Your task to perform on an android device: toggle improve location accuracy Image 0: 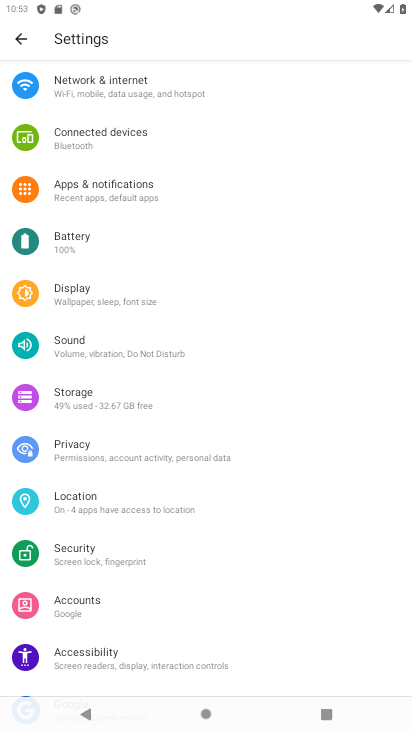
Step 0: click (86, 507)
Your task to perform on an android device: toggle improve location accuracy Image 1: 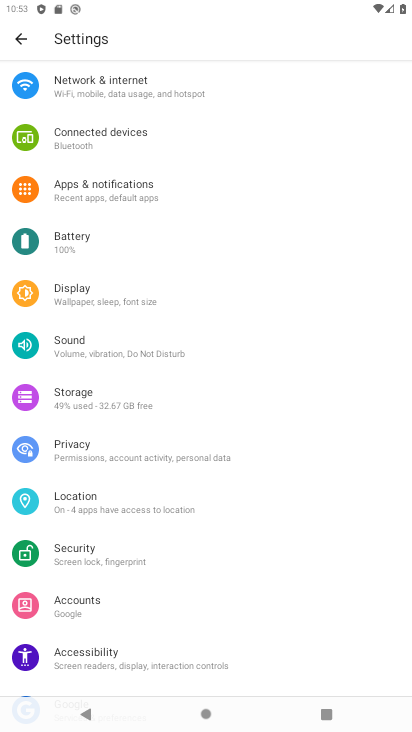
Step 1: click (77, 507)
Your task to perform on an android device: toggle improve location accuracy Image 2: 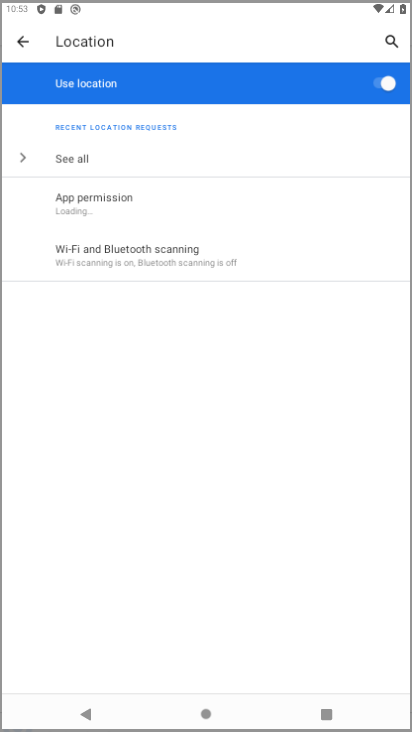
Step 2: click (77, 507)
Your task to perform on an android device: toggle improve location accuracy Image 3: 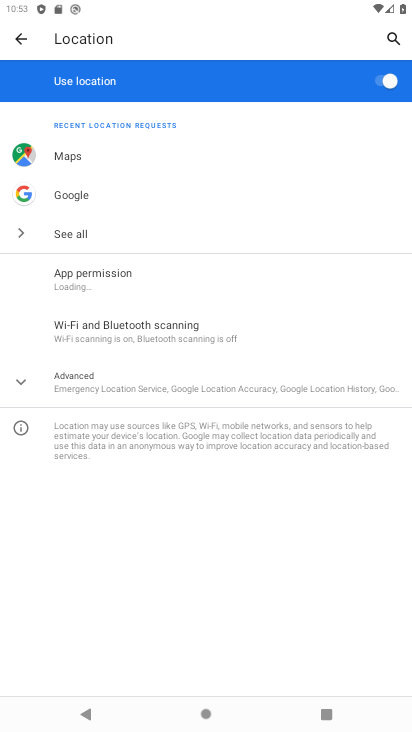
Step 3: click (103, 381)
Your task to perform on an android device: toggle improve location accuracy Image 4: 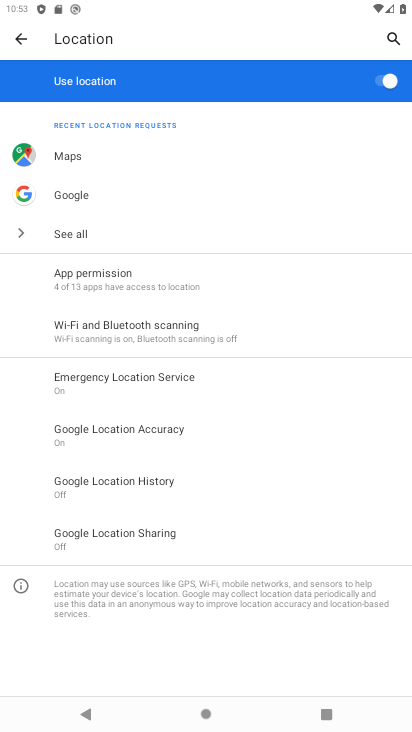
Step 4: click (108, 426)
Your task to perform on an android device: toggle improve location accuracy Image 5: 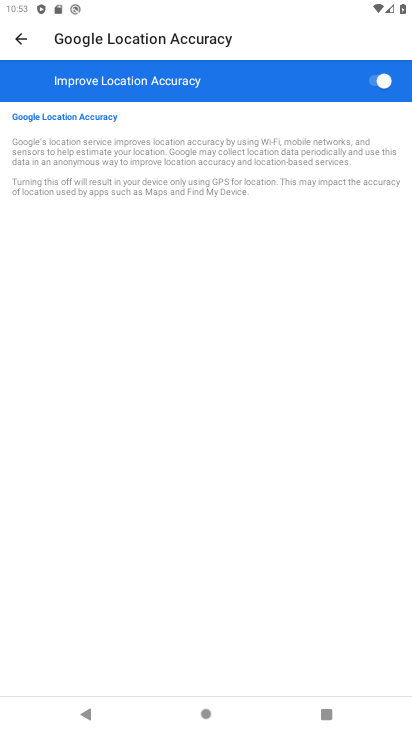
Step 5: click (380, 79)
Your task to perform on an android device: toggle improve location accuracy Image 6: 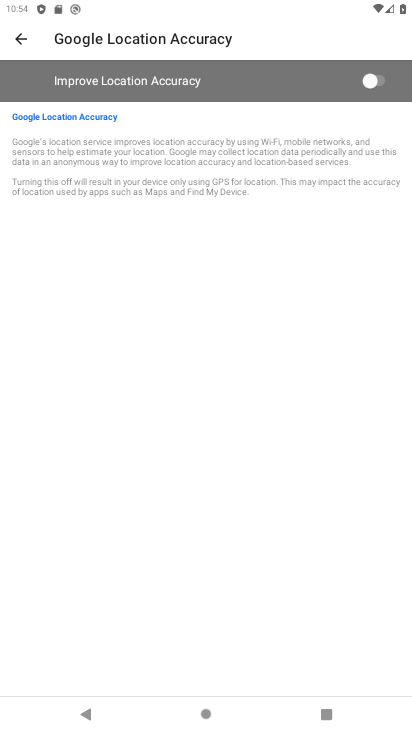
Step 6: click (23, 38)
Your task to perform on an android device: toggle improve location accuracy Image 7: 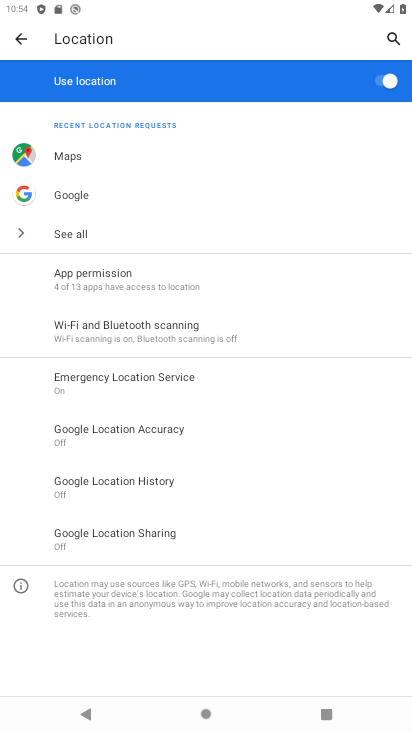
Step 7: click (14, 42)
Your task to perform on an android device: toggle improve location accuracy Image 8: 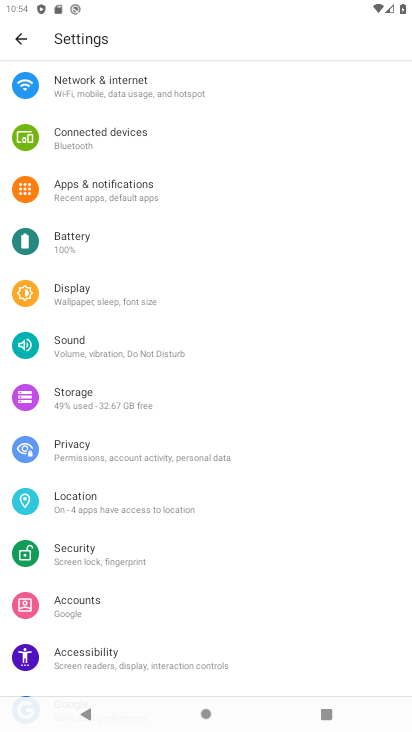
Step 8: click (87, 498)
Your task to perform on an android device: toggle improve location accuracy Image 9: 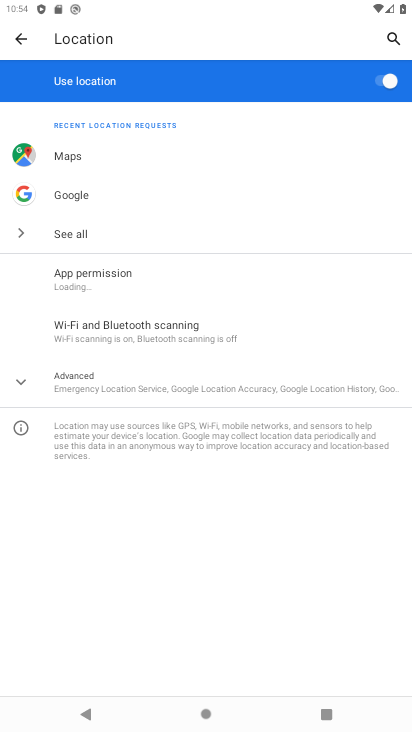
Step 9: click (85, 376)
Your task to perform on an android device: toggle improve location accuracy Image 10: 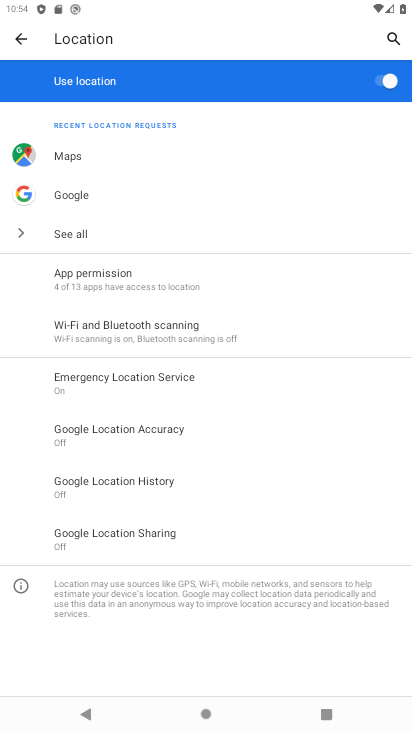
Step 10: click (119, 439)
Your task to perform on an android device: toggle improve location accuracy Image 11: 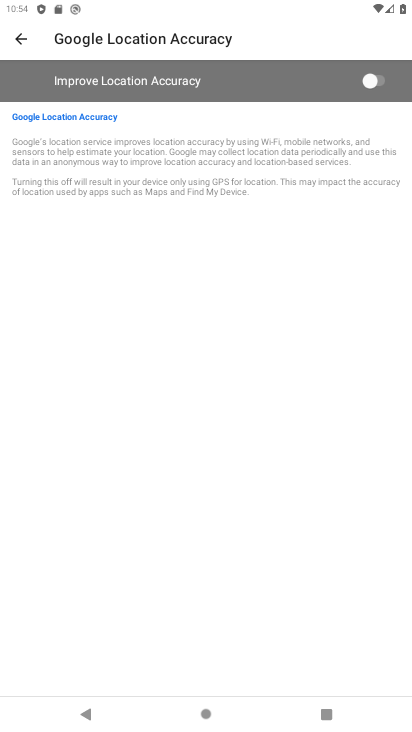
Step 11: click (364, 77)
Your task to perform on an android device: toggle improve location accuracy Image 12: 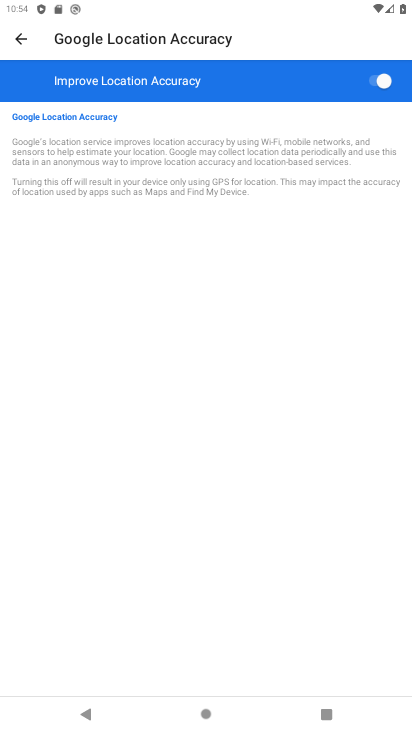
Step 12: press back button
Your task to perform on an android device: toggle improve location accuracy Image 13: 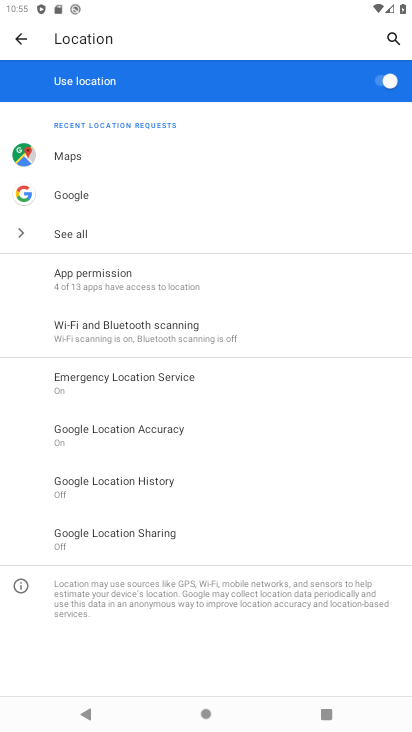
Step 13: click (138, 431)
Your task to perform on an android device: toggle improve location accuracy Image 14: 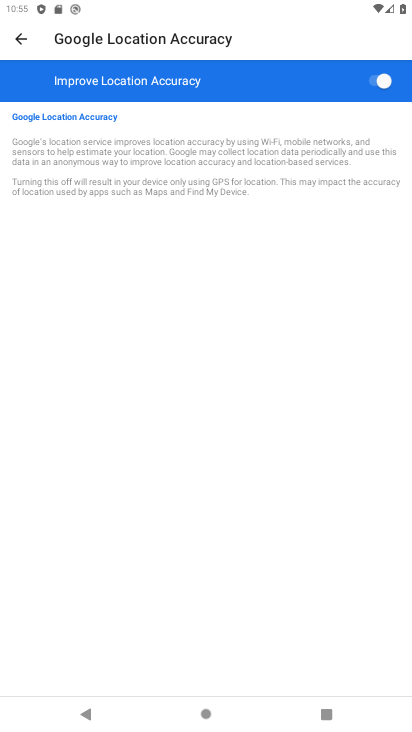
Step 14: click (387, 84)
Your task to perform on an android device: toggle improve location accuracy Image 15: 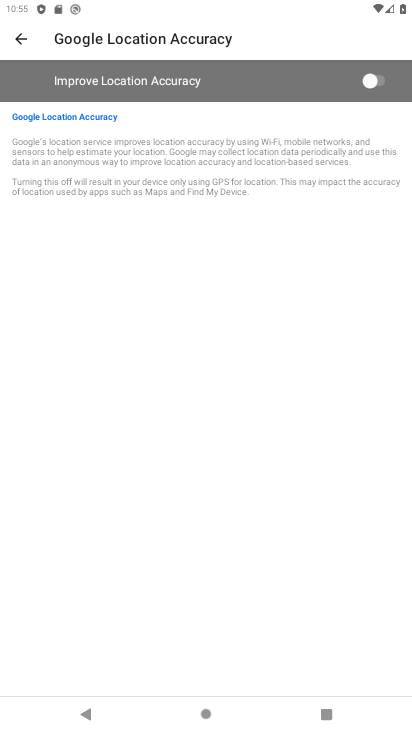
Step 15: press back button
Your task to perform on an android device: toggle improve location accuracy Image 16: 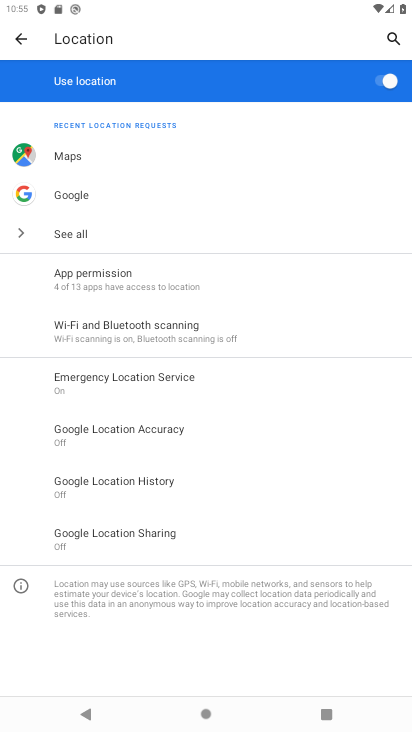
Step 16: press home button
Your task to perform on an android device: toggle improve location accuracy Image 17: 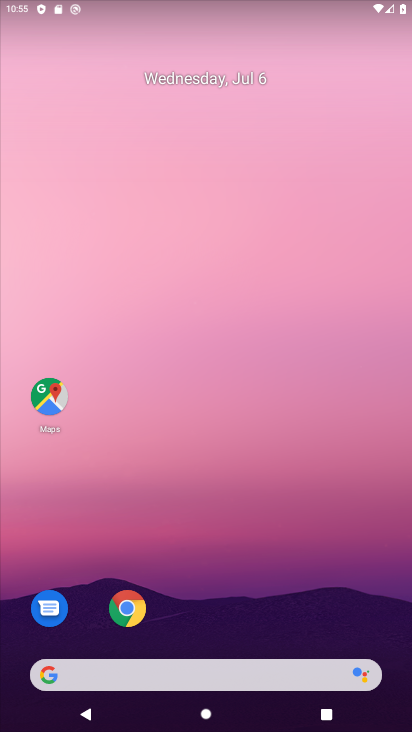
Step 17: drag from (259, 607) to (195, 75)
Your task to perform on an android device: toggle improve location accuracy Image 18: 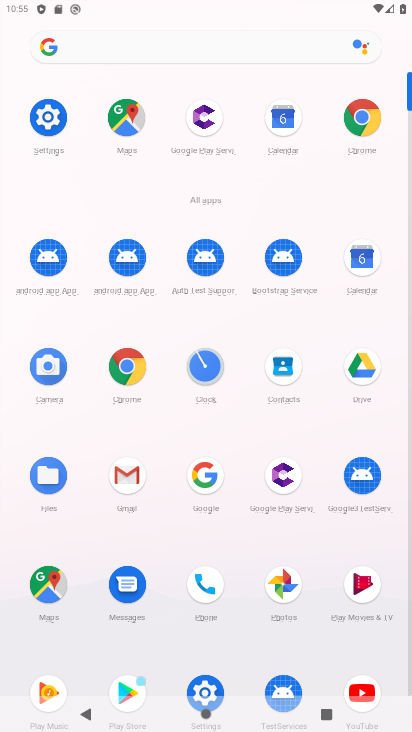
Step 18: click (207, 681)
Your task to perform on an android device: toggle improve location accuracy Image 19: 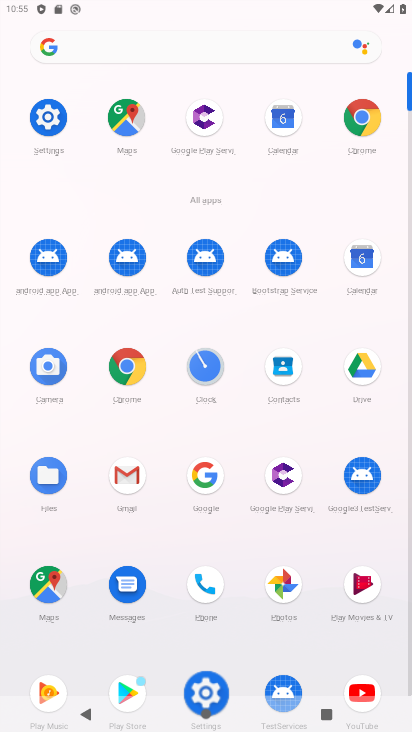
Step 19: click (209, 677)
Your task to perform on an android device: toggle improve location accuracy Image 20: 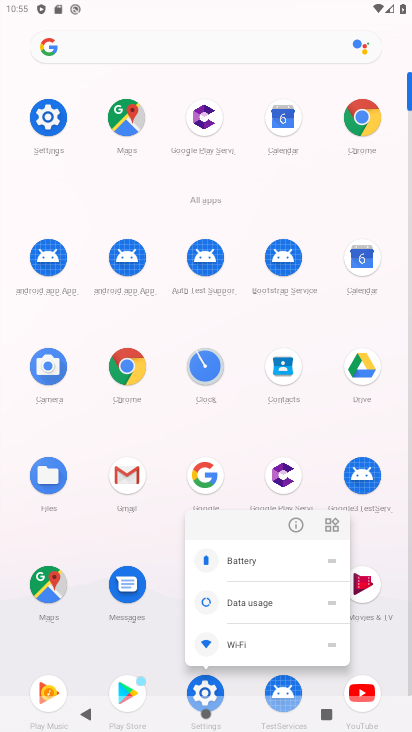
Step 20: click (203, 683)
Your task to perform on an android device: toggle improve location accuracy Image 21: 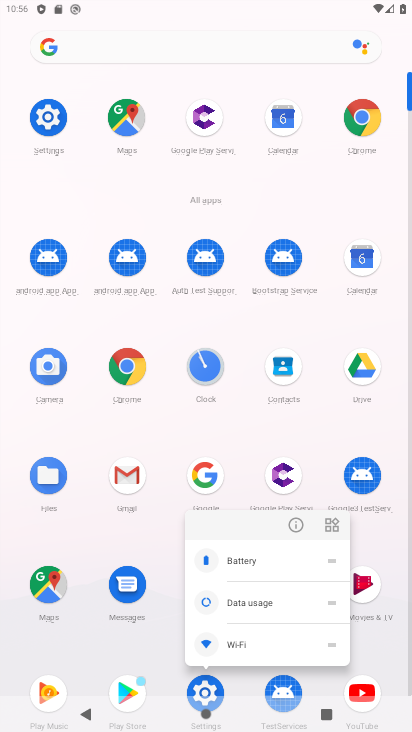
Step 21: click (220, 676)
Your task to perform on an android device: toggle improve location accuracy Image 22: 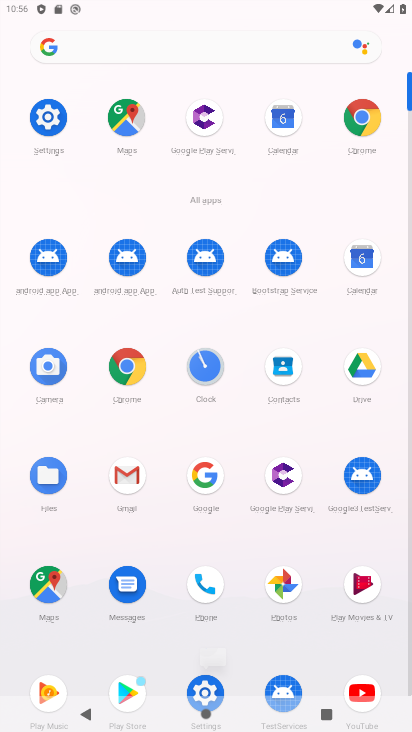
Step 22: click (220, 679)
Your task to perform on an android device: toggle improve location accuracy Image 23: 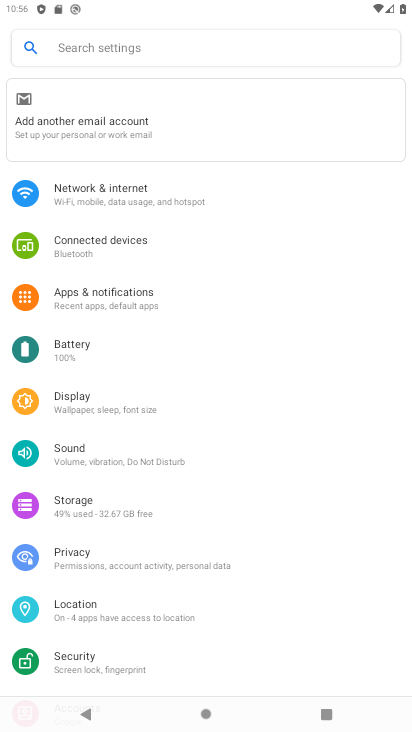
Step 23: drag from (82, 577) to (83, 253)
Your task to perform on an android device: toggle improve location accuracy Image 24: 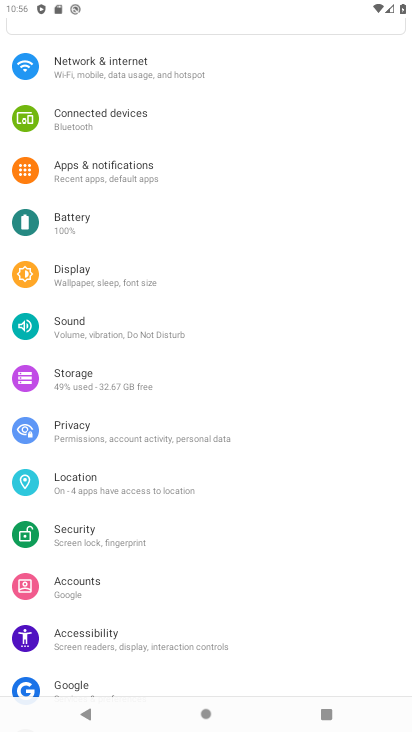
Step 24: click (86, 482)
Your task to perform on an android device: toggle improve location accuracy Image 25: 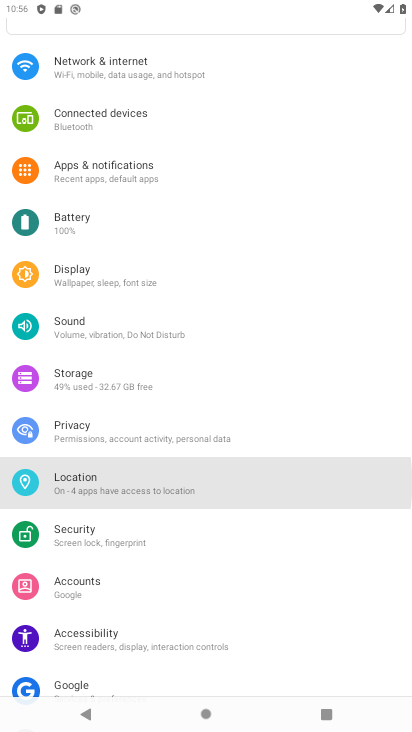
Step 25: click (91, 479)
Your task to perform on an android device: toggle improve location accuracy Image 26: 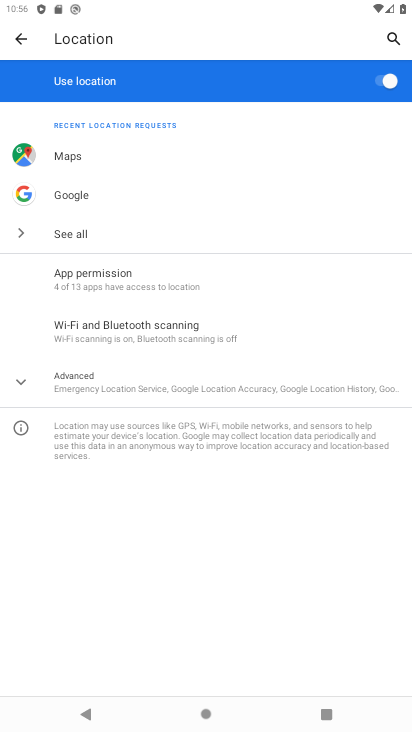
Step 26: click (81, 380)
Your task to perform on an android device: toggle improve location accuracy Image 27: 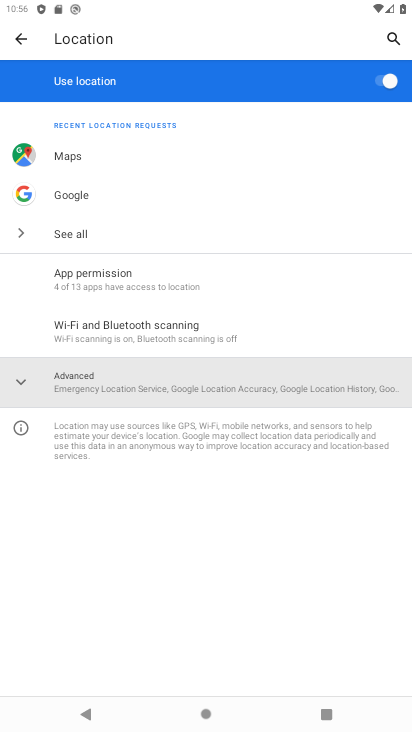
Step 27: click (81, 380)
Your task to perform on an android device: toggle improve location accuracy Image 28: 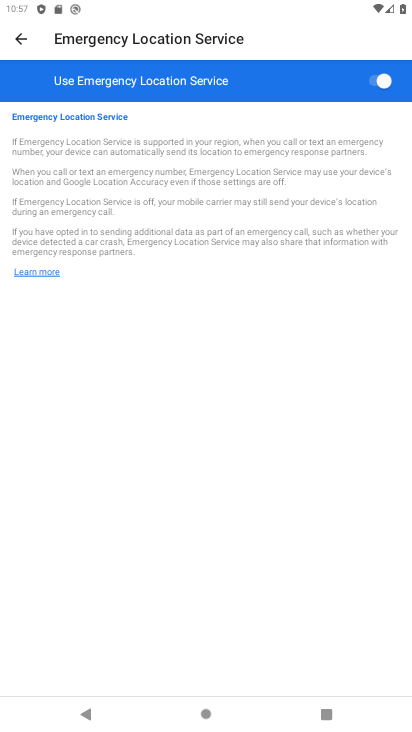
Step 28: click (16, 40)
Your task to perform on an android device: toggle improve location accuracy Image 29: 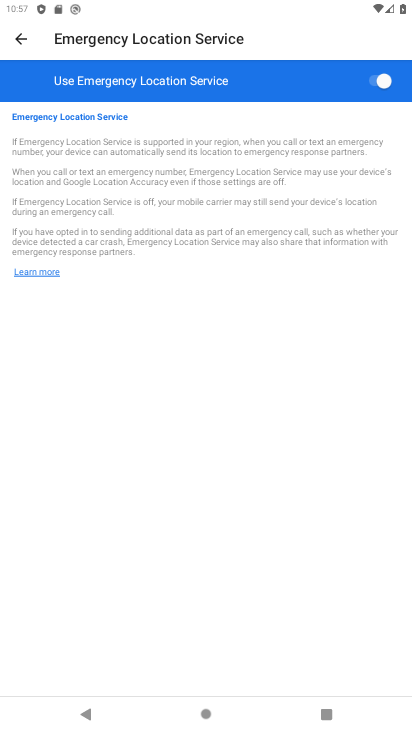
Step 29: click (17, 42)
Your task to perform on an android device: toggle improve location accuracy Image 30: 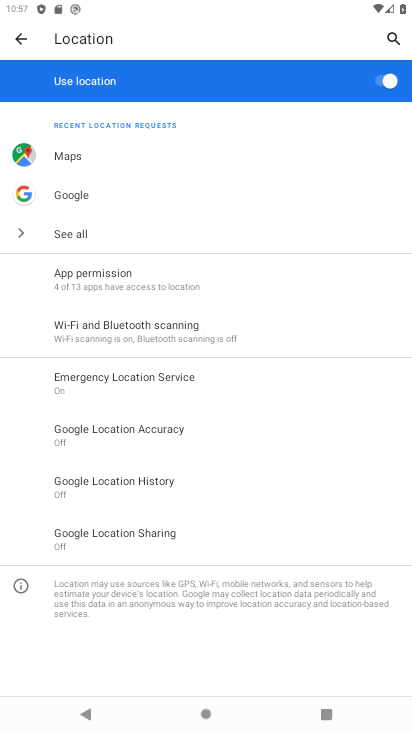
Step 30: click (129, 421)
Your task to perform on an android device: toggle improve location accuracy Image 31: 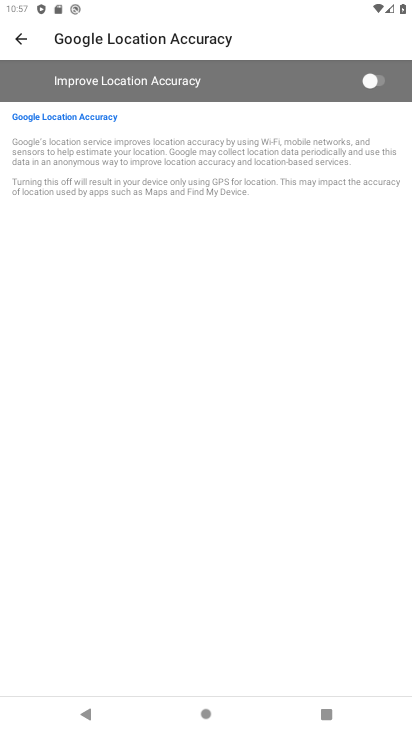
Step 31: click (359, 85)
Your task to perform on an android device: toggle improve location accuracy Image 32: 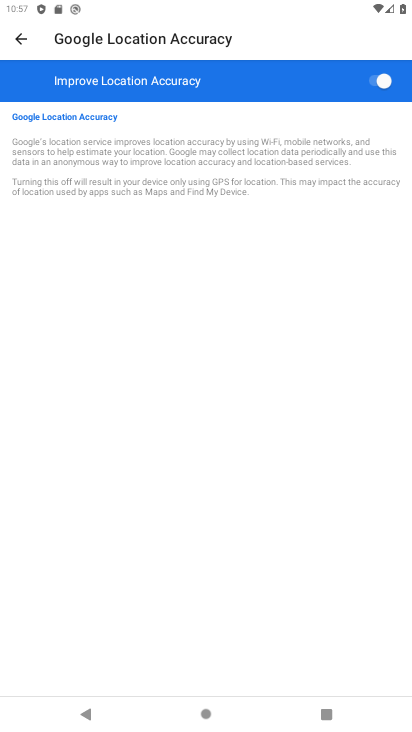
Step 32: click (19, 41)
Your task to perform on an android device: toggle improve location accuracy Image 33: 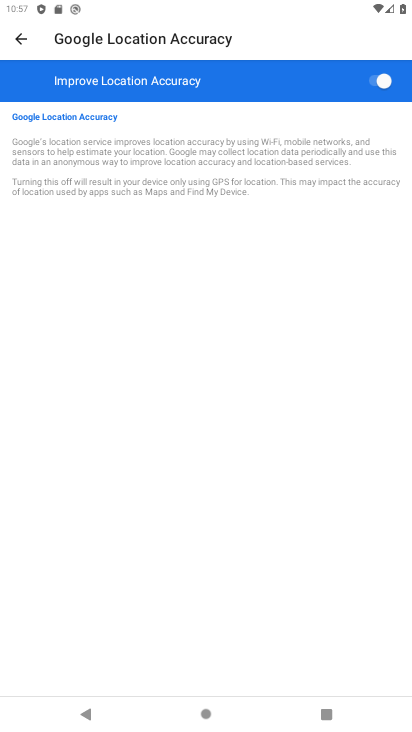
Step 33: click (9, 40)
Your task to perform on an android device: toggle improve location accuracy Image 34: 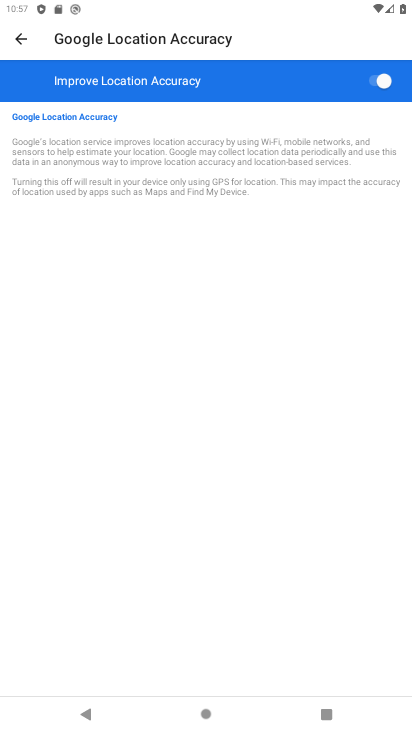
Step 34: click (18, 36)
Your task to perform on an android device: toggle improve location accuracy Image 35: 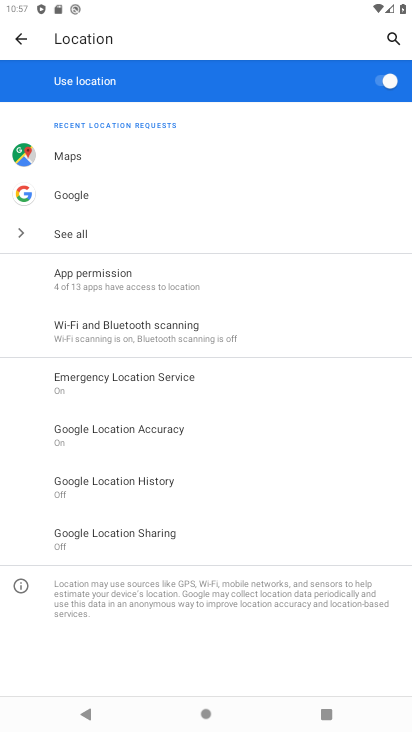
Step 35: click (127, 426)
Your task to perform on an android device: toggle improve location accuracy Image 36: 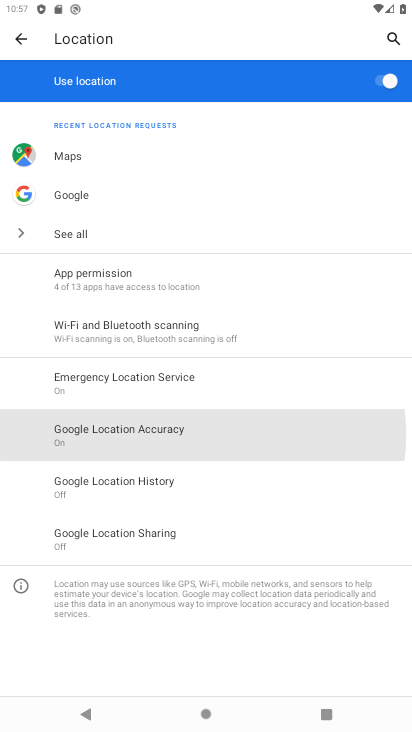
Step 36: click (127, 426)
Your task to perform on an android device: toggle improve location accuracy Image 37: 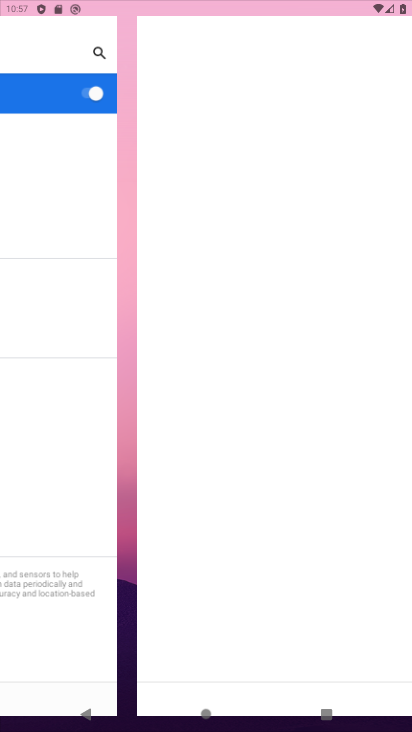
Step 37: click (127, 426)
Your task to perform on an android device: toggle improve location accuracy Image 38: 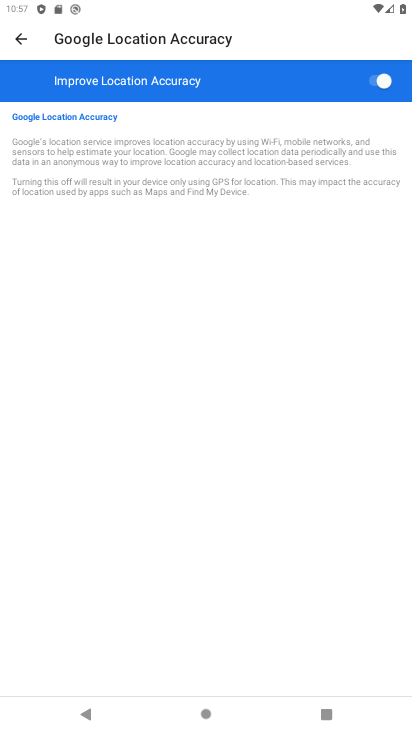
Step 38: click (376, 80)
Your task to perform on an android device: toggle improve location accuracy Image 39: 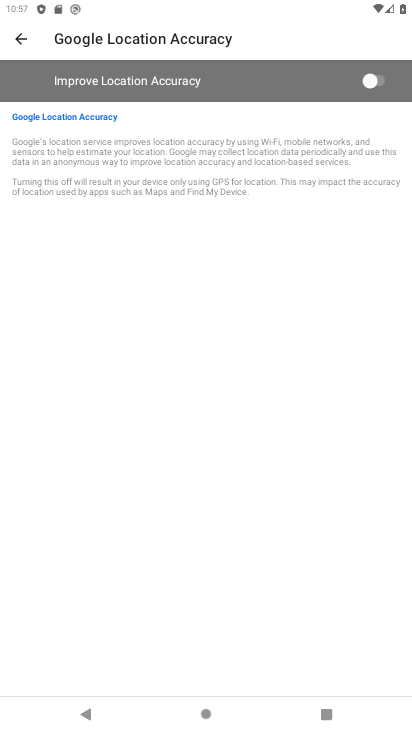
Step 39: task complete